Your task to perform on an android device: move a message to another label in the gmail app Image 0: 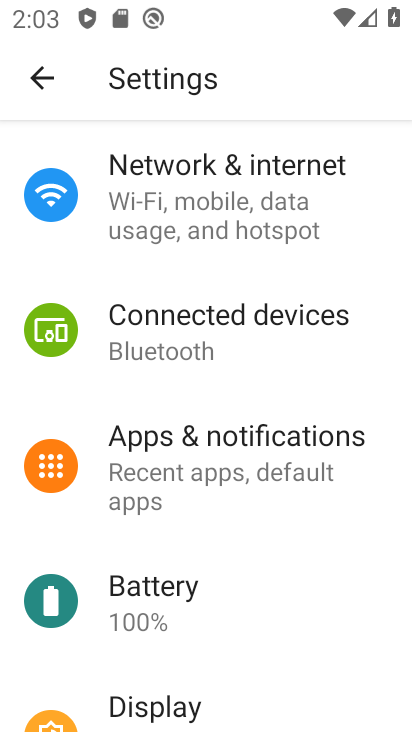
Step 0: press home button
Your task to perform on an android device: move a message to another label in the gmail app Image 1: 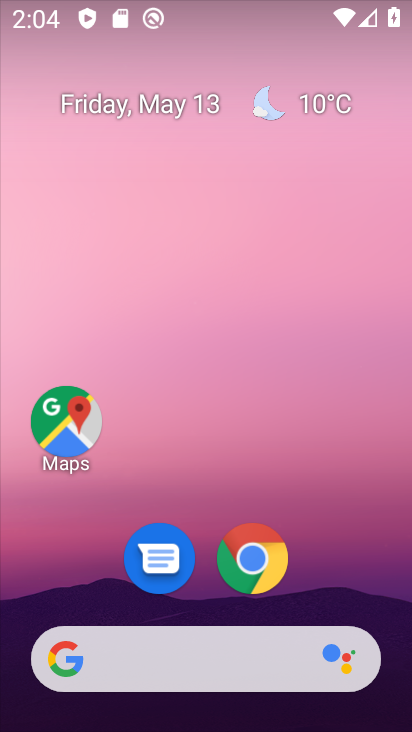
Step 1: drag from (201, 597) to (203, 203)
Your task to perform on an android device: move a message to another label in the gmail app Image 2: 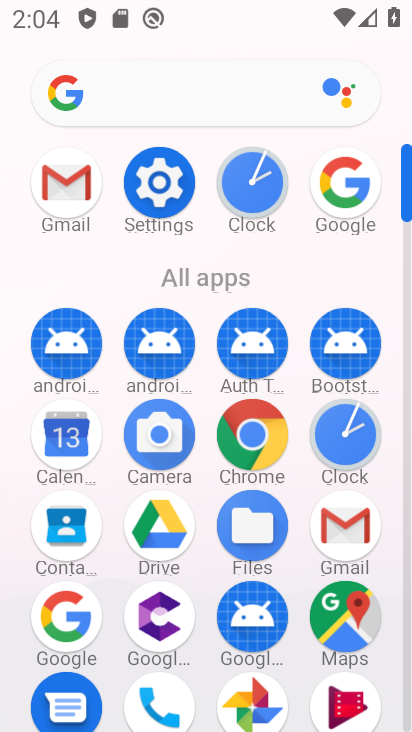
Step 2: click (79, 209)
Your task to perform on an android device: move a message to another label in the gmail app Image 3: 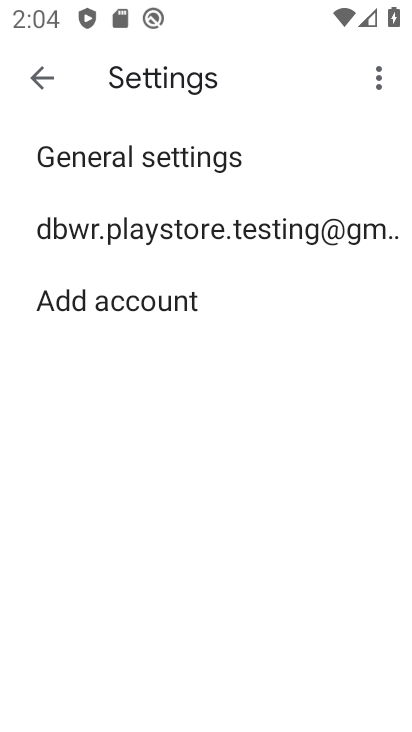
Step 3: click (32, 54)
Your task to perform on an android device: move a message to another label in the gmail app Image 4: 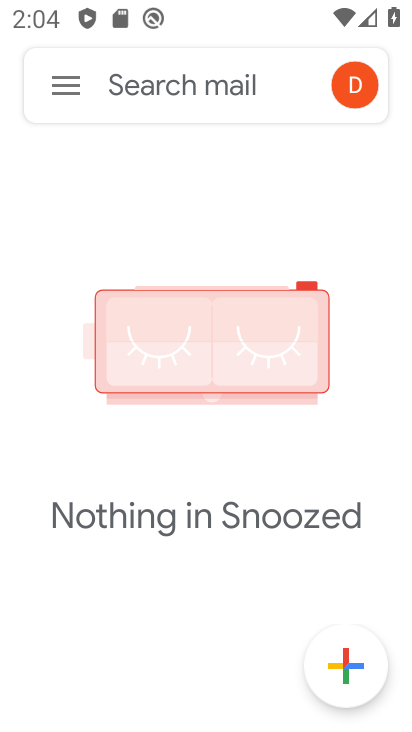
Step 4: click (63, 96)
Your task to perform on an android device: move a message to another label in the gmail app Image 5: 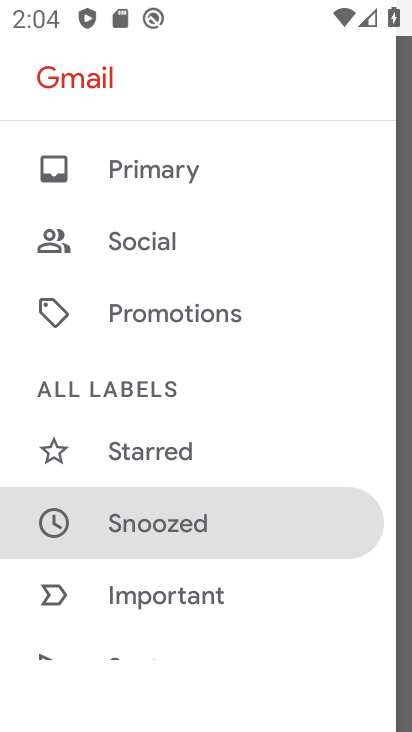
Step 5: drag from (202, 582) to (228, 298)
Your task to perform on an android device: move a message to another label in the gmail app Image 6: 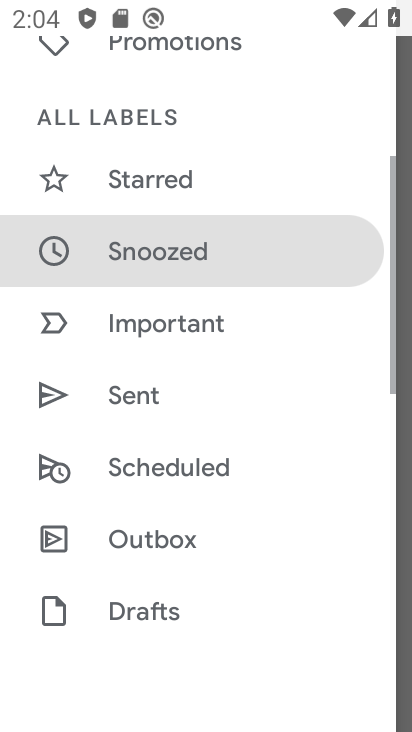
Step 6: drag from (211, 569) to (223, 277)
Your task to perform on an android device: move a message to another label in the gmail app Image 7: 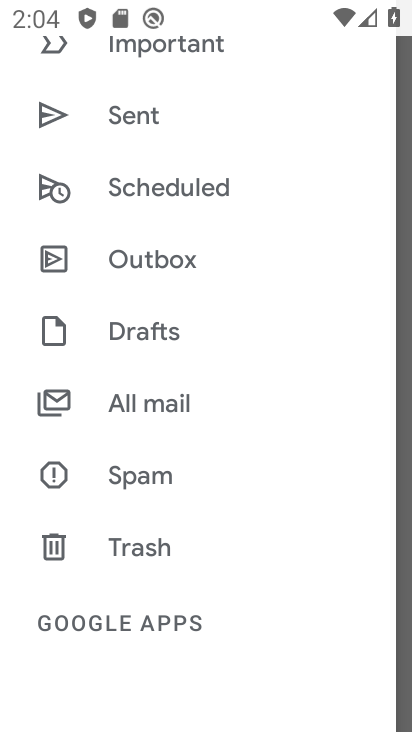
Step 7: click (141, 407)
Your task to perform on an android device: move a message to another label in the gmail app Image 8: 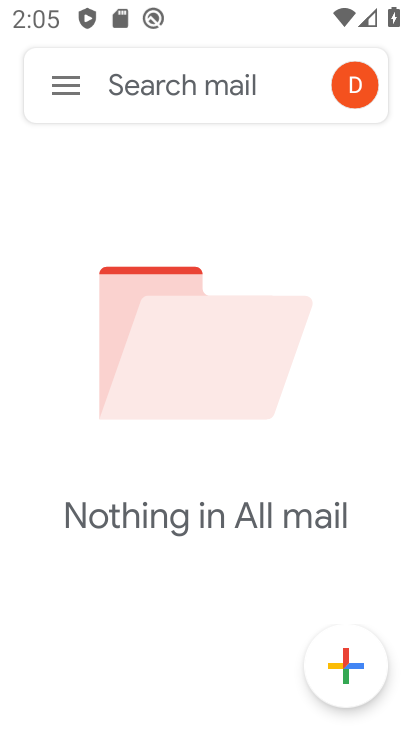
Step 8: task complete